Your task to perform on an android device: toggle notifications settings in the gmail app Image 0: 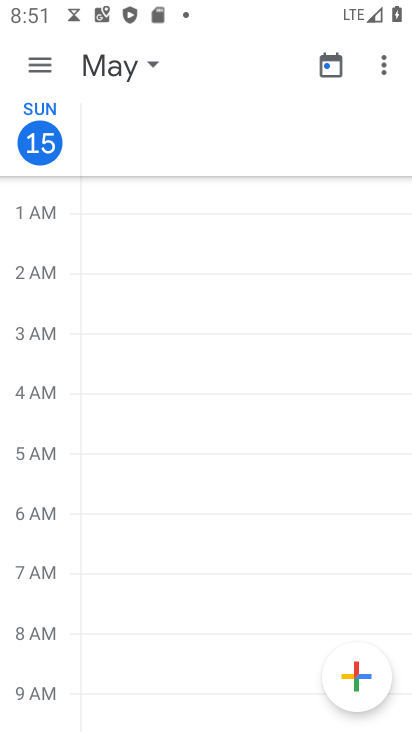
Step 0: press back button
Your task to perform on an android device: toggle notifications settings in the gmail app Image 1: 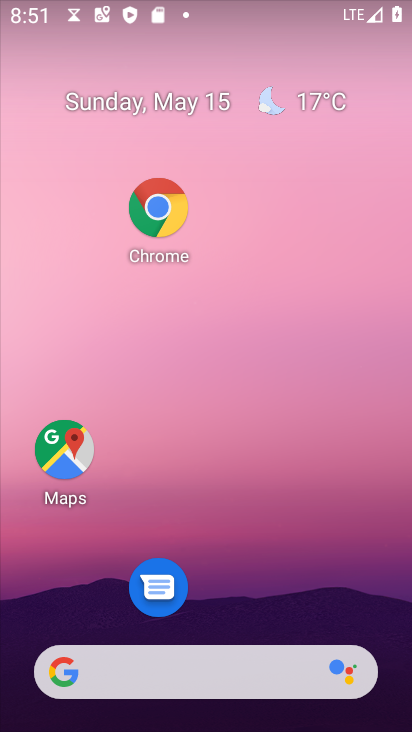
Step 1: drag from (284, 643) to (168, 159)
Your task to perform on an android device: toggle notifications settings in the gmail app Image 2: 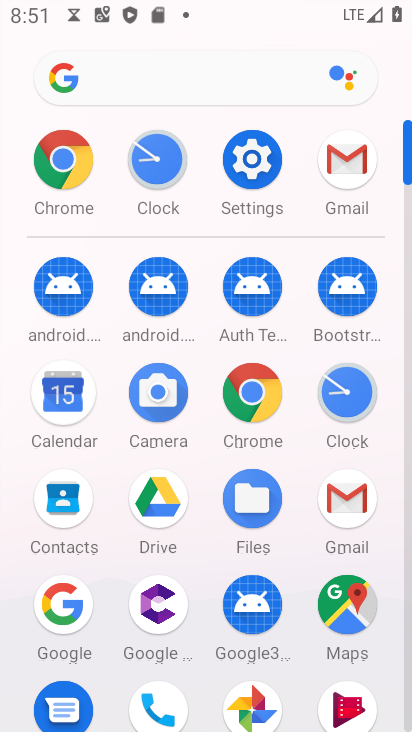
Step 2: click (346, 495)
Your task to perform on an android device: toggle notifications settings in the gmail app Image 3: 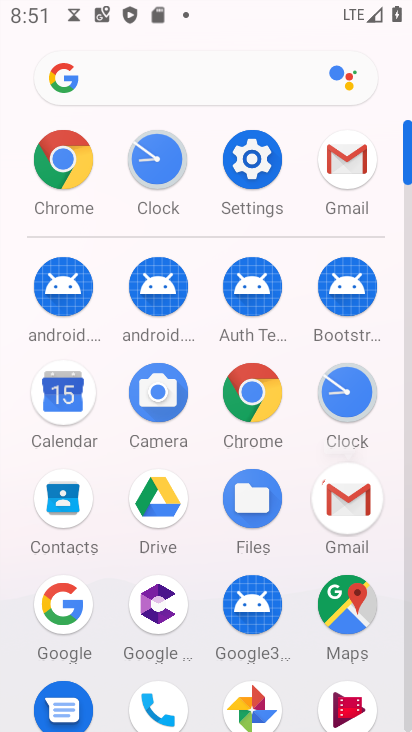
Step 3: click (347, 495)
Your task to perform on an android device: toggle notifications settings in the gmail app Image 4: 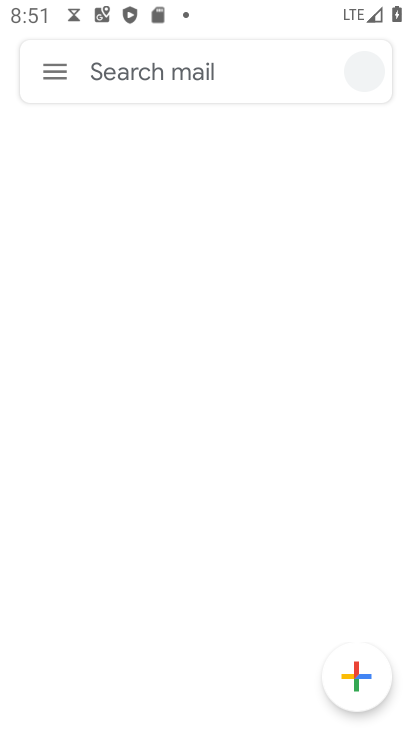
Step 4: click (348, 492)
Your task to perform on an android device: toggle notifications settings in the gmail app Image 5: 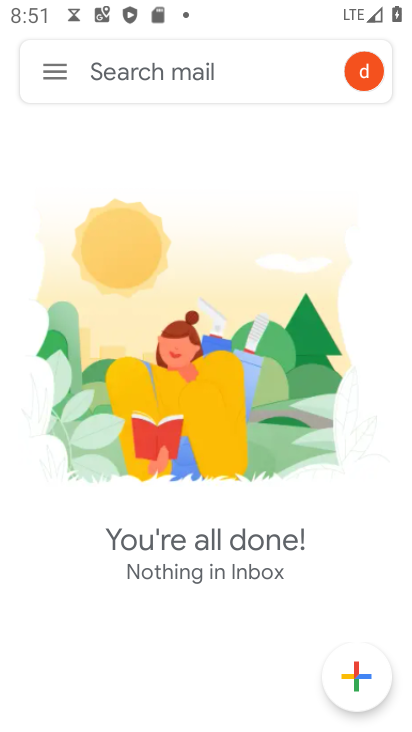
Step 5: click (51, 72)
Your task to perform on an android device: toggle notifications settings in the gmail app Image 6: 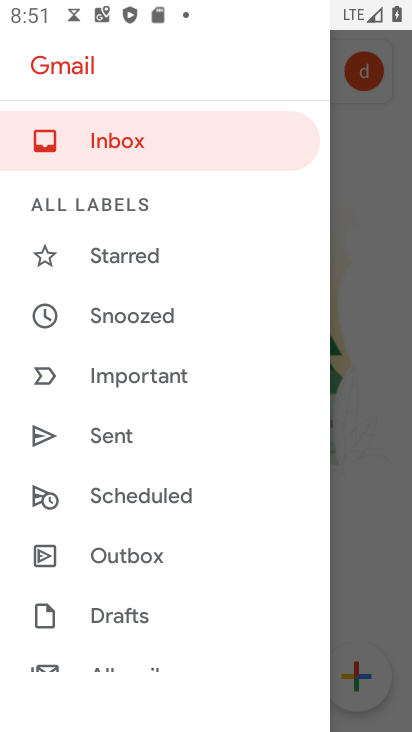
Step 6: drag from (144, 556) to (145, 63)
Your task to perform on an android device: toggle notifications settings in the gmail app Image 7: 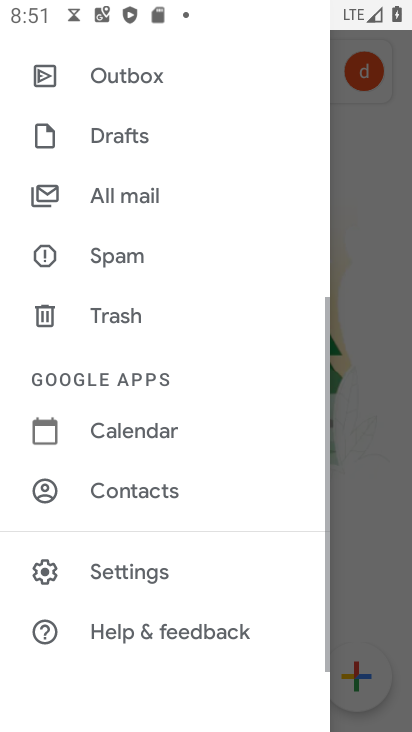
Step 7: drag from (174, 407) to (143, 110)
Your task to perform on an android device: toggle notifications settings in the gmail app Image 8: 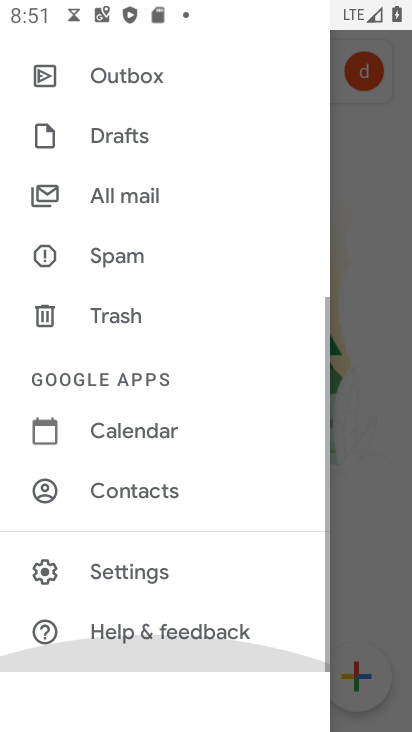
Step 8: drag from (197, 468) to (252, 2)
Your task to perform on an android device: toggle notifications settings in the gmail app Image 9: 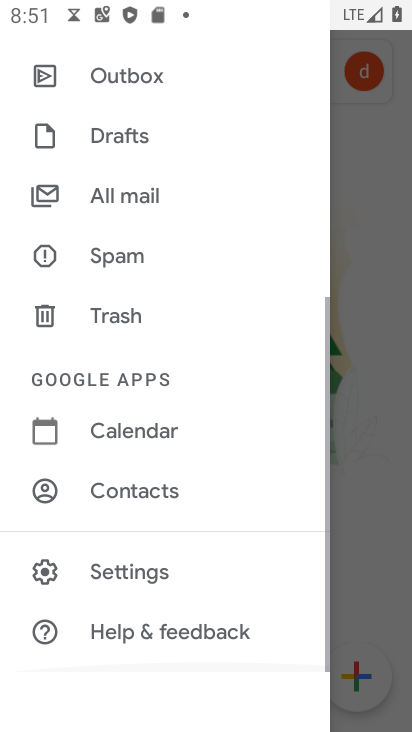
Step 9: drag from (117, 516) to (97, 83)
Your task to perform on an android device: toggle notifications settings in the gmail app Image 10: 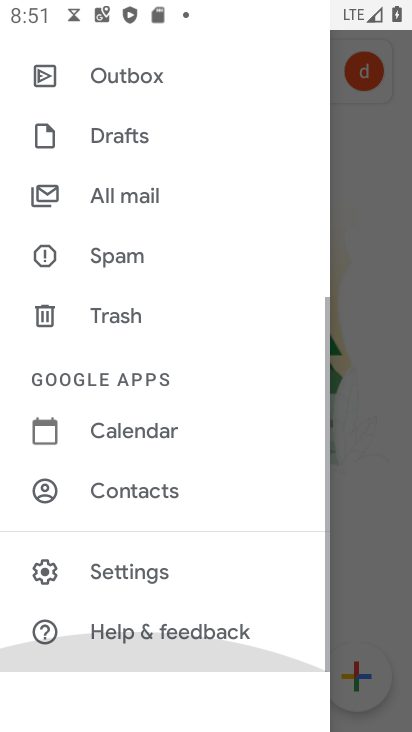
Step 10: drag from (76, 141) to (74, 74)
Your task to perform on an android device: toggle notifications settings in the gmail app Image 11: 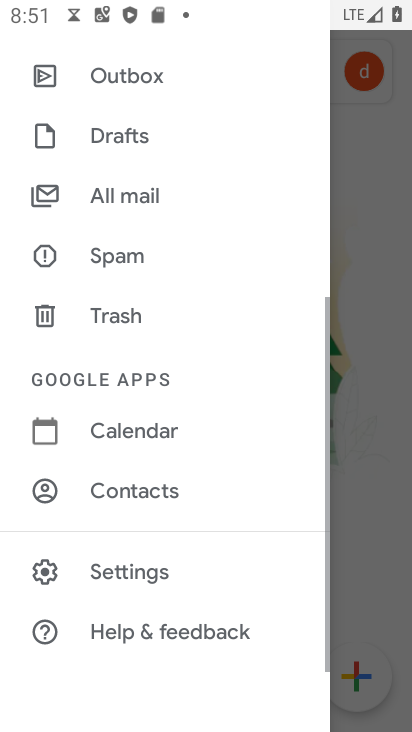
Step 11: click (114, 565)
Your task to perform on an android device: toggle notifications settings in the gmail app Image 12: 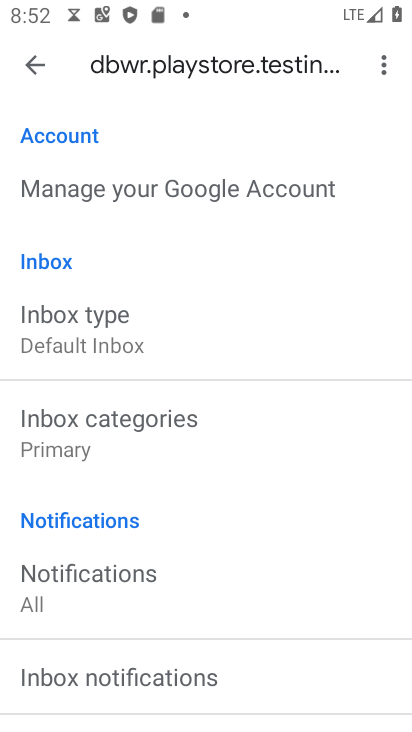
Step 12: drag from (155, 517) to (185, 158)
Your task to perform on an android device: toggle notifications settings in the gmail app Image 13: 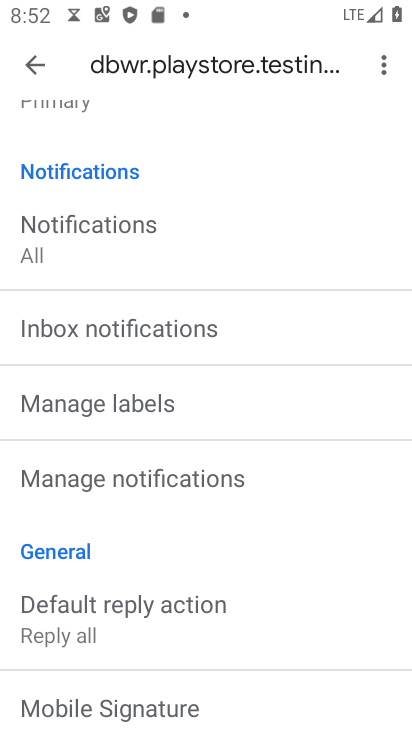
Step 13: drag from (115, 554) to (37, 14)
Your task to perform on an android device: toggle notifications settings in the gmail app Image 14: 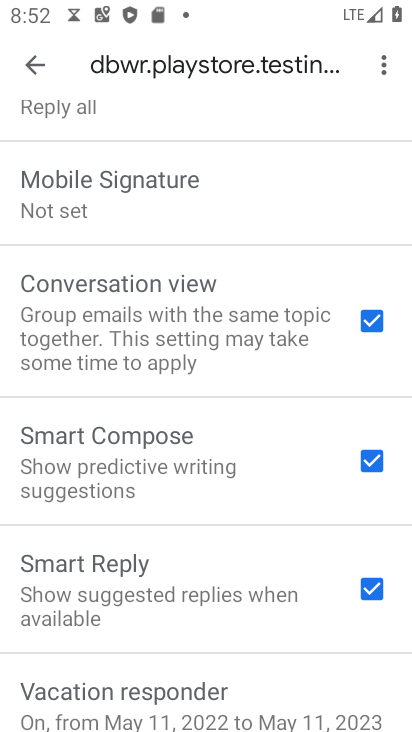
Step 14: drag from (82, 248) to (108, 468)
Your task to perform on an android device: toggle notifications settings in the gmail app Image 15: 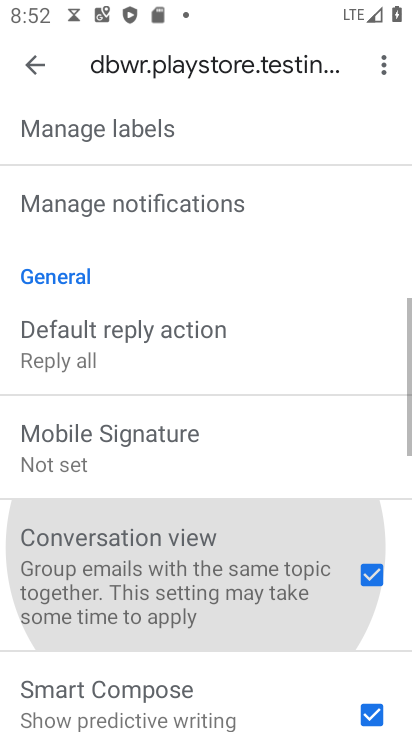
Step 15: drag from (137, 170) to (167, 616)
Your task to perform on an android device: toggle notifications settings in the gmail app Image 16: 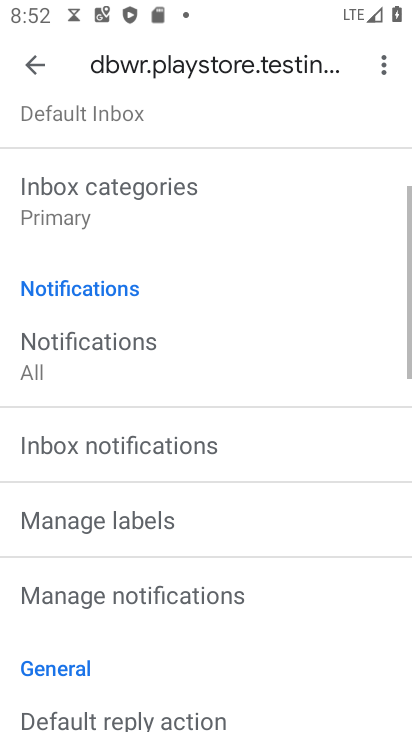
Step 16: drag from (146, 294) to (190, 589)
Your task to perform on an android device: toggle notifications settings in the gmail app Image 17: 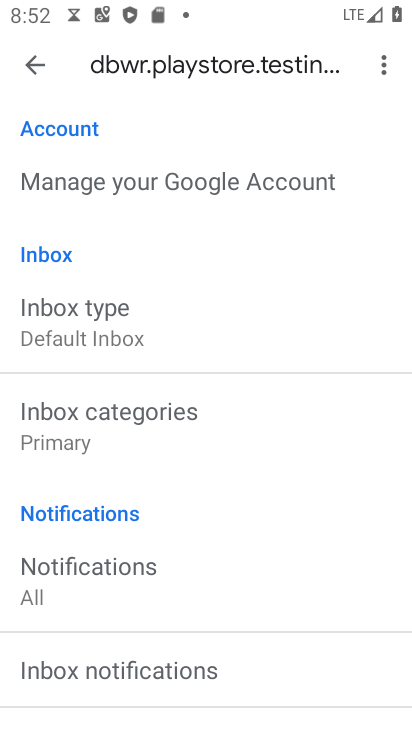
Step 17: drag from (65, 542) to (66, 577)
Your task to perform on an android device: toggle notifications settings in the gmail app Image 18: 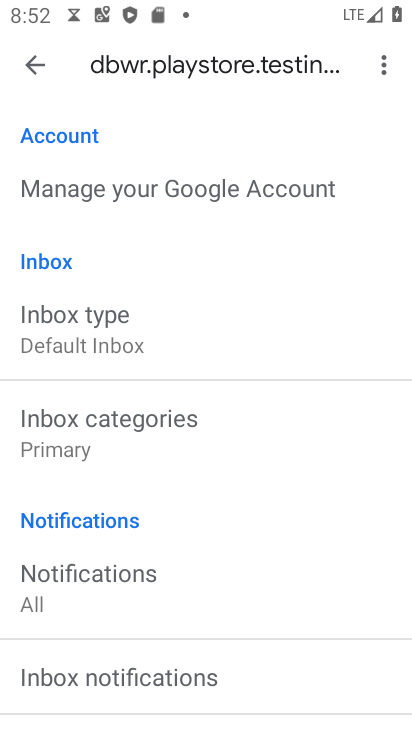
Step 18: click (70, 574)
Your task to perform on an android device: toggle notifications settings in the gmail app Image 19: 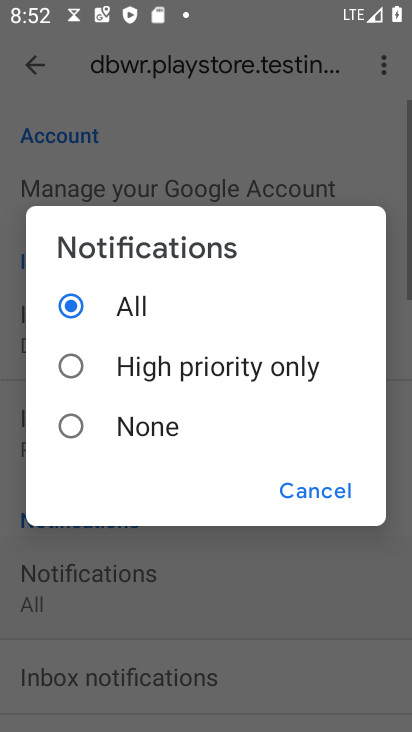
Step 19: click (70, 574)
Your task to perform on an android device: toggle notifications settings in the gmail app Image 20: 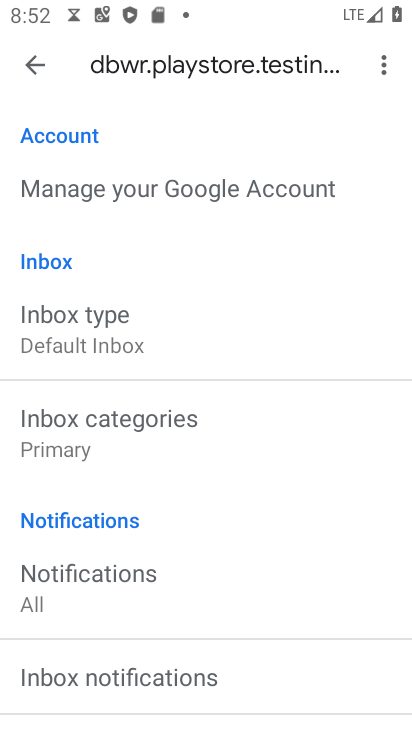
Step 20: click (70, 356)
Your task to perform on an android device: toggle notifications settings in the gmail app Image 21: 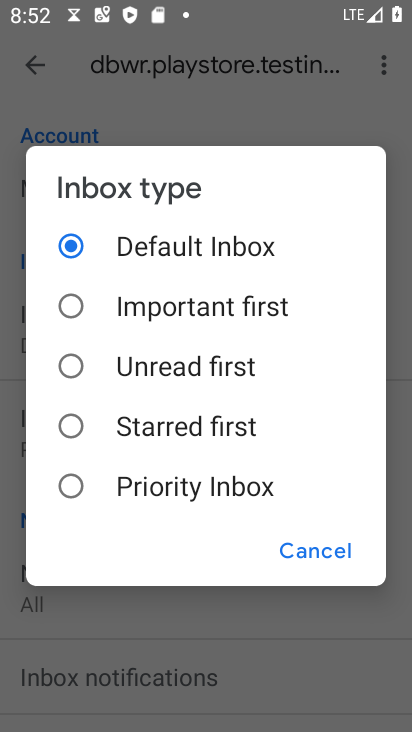
Step 21: task complete